Your task to perform on an android device: change timer sound Image 0: 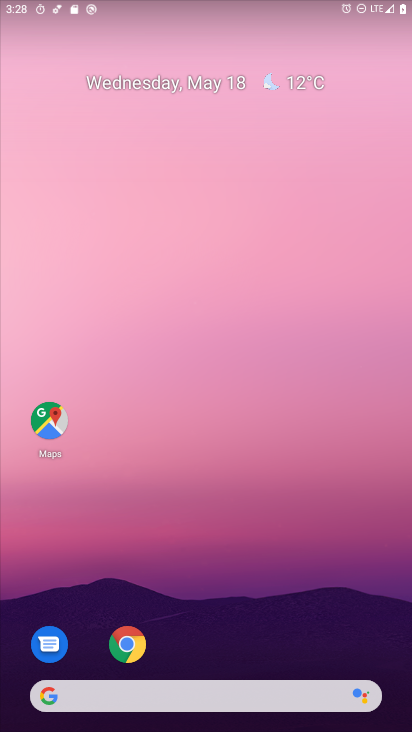
Step 0: drag from (382, 669) to (405, 314)
Your task to perform on an android device: change timer sound Image 1: 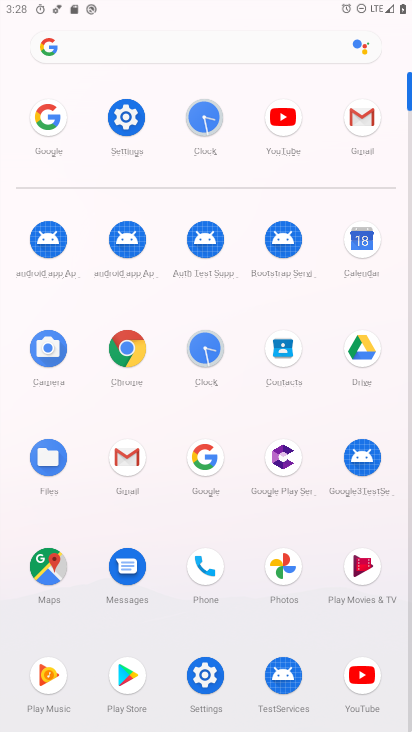
Step 1: click (203, 671)
Your task to perform on an android device: change timer sound Image 2: 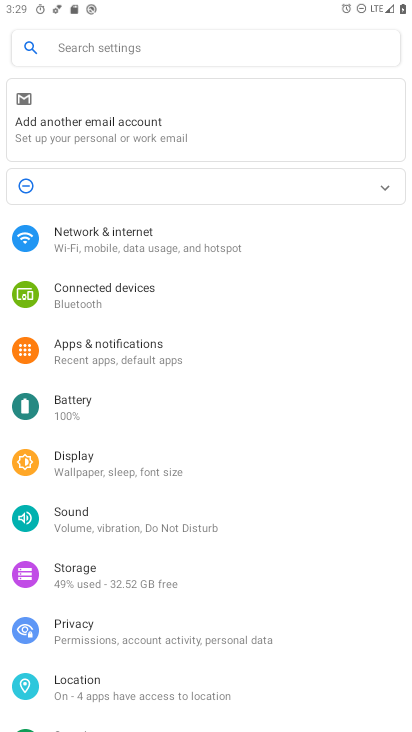
Step 2: press home button
Your task to perform on an android device: change timer sound Image 3: 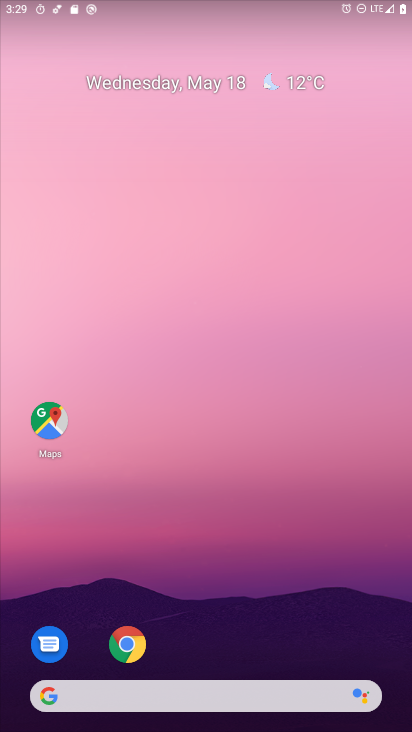
Step 3: drag from (396, 539) to (402, 169)
Your task to perform on an android device: change timer sound Image 4: 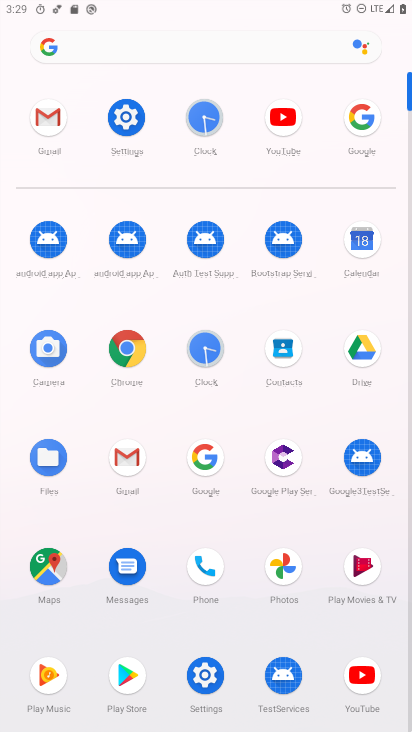
Step 4: click (195, 354)
Your task to perform on an android device: change timer sound Image 5: 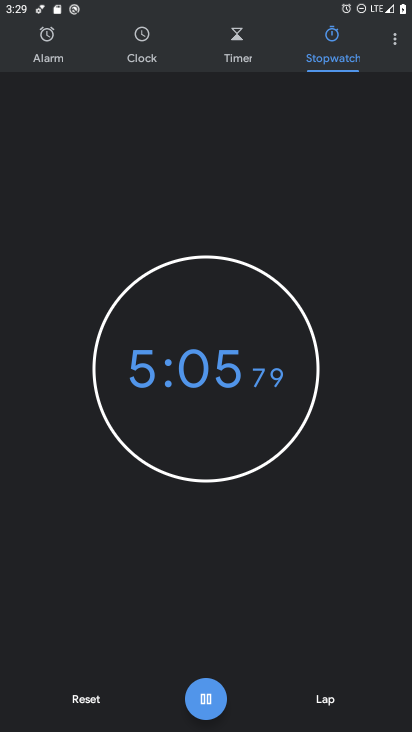
Step 5: click (162, 495)
Your task to perform on an android device: change timer sound Image 6: 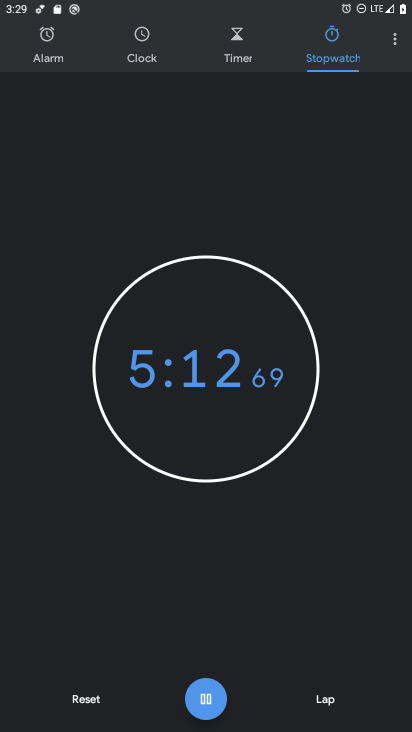
Step 6: click (394, 41)
Your task to perform on an android device: change timer sound Image 7: 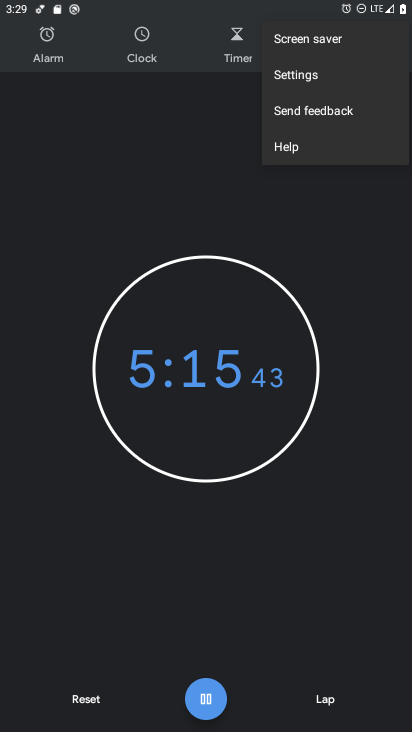
Step 7: click (278, 74)
Your task to perform on an android device: change timer sound Image 8: 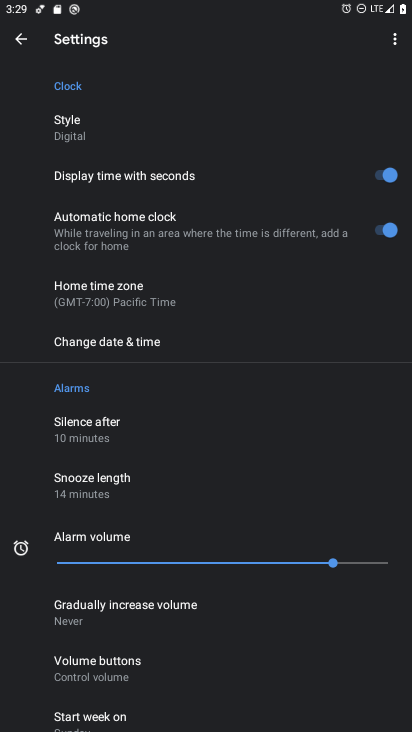
Step 8: drag from (223, 486) to (245, 330)
Your task to perform on an android device: change timer sound Image 9: 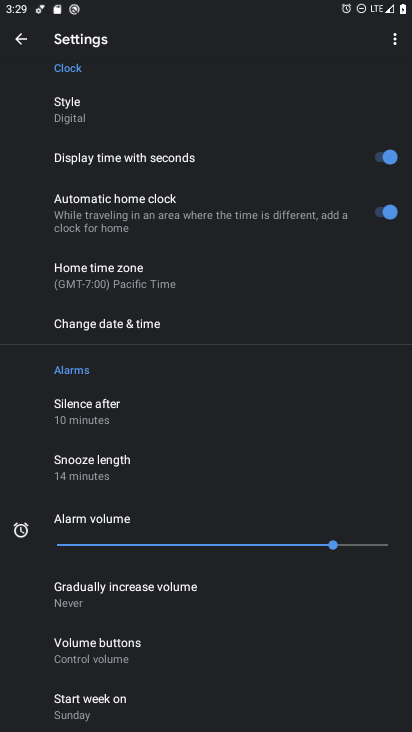
Step 9: drag from (204, 687) to (244, 415)
Your task to perform on an android device: change timer sound Image 10: 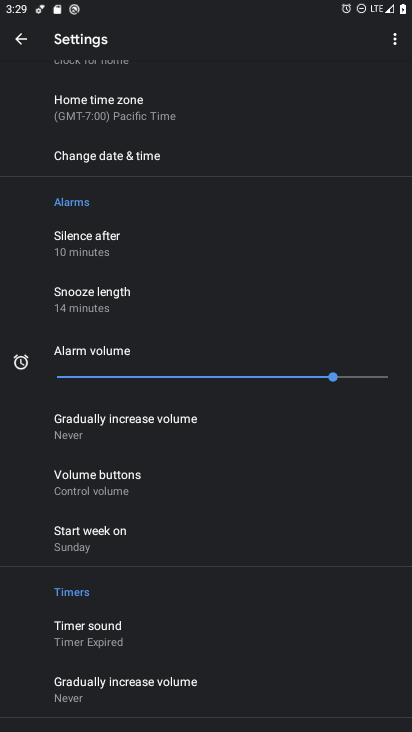
Step 10: click (95, 630)
Your task to perform on an android device: change timer sound Image 11: 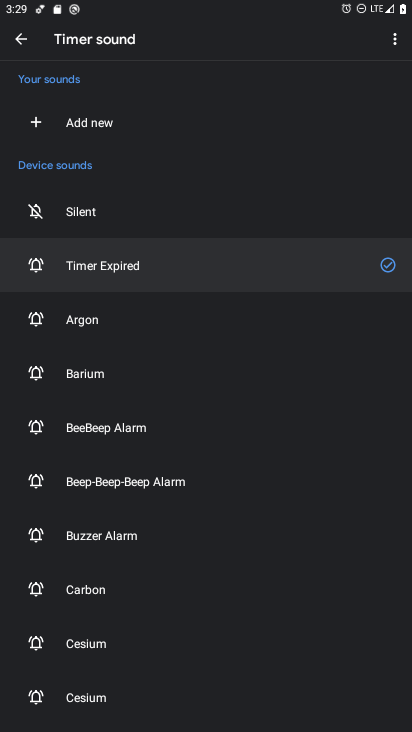
Step 11: click (75, 323)
Your task to perform on an android device: change timer sound Image 12: 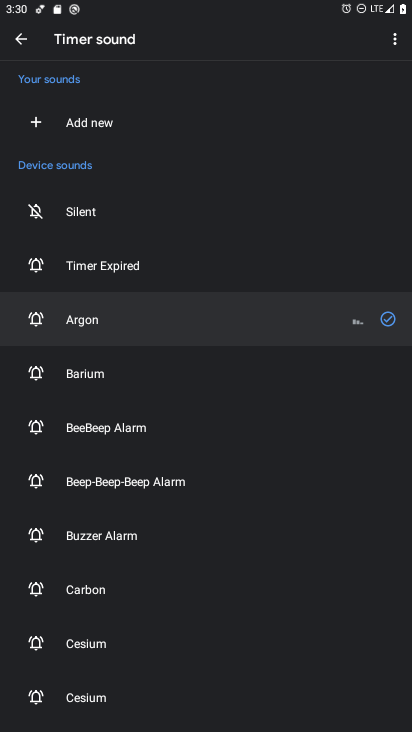
Step 12: task complete